Your task to perform on an android device: turn off picture-in-picture Image 0: 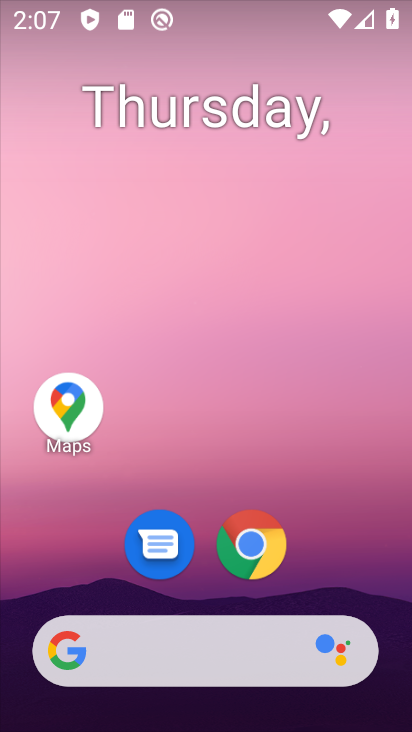
Step 0: drag from (322, 585) to (119, 144)
Your task to perform on an android device: turn off picture-in-picture Image 1: 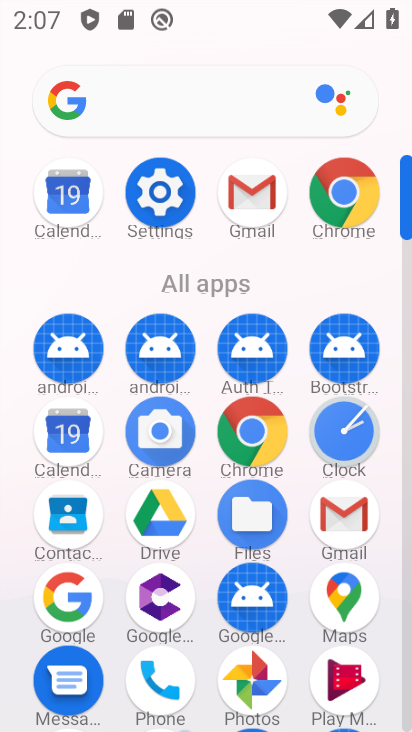
Step 1: click (177, 207)
Your task to perform on an android device: turn off picture-in-picture Image 2: 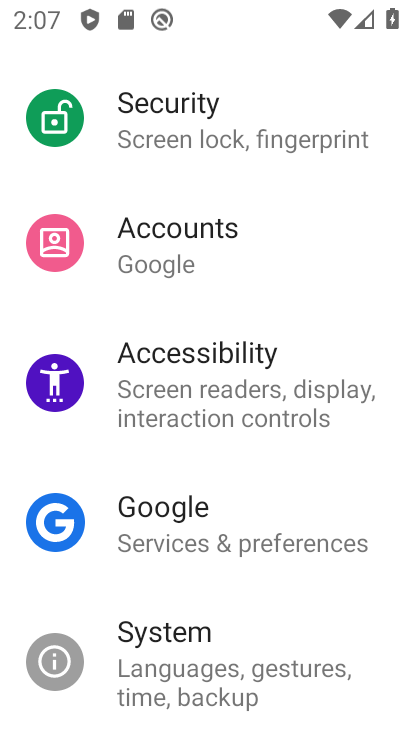
Step 2: drag from (235, 178) to (190, 686)
Your task to perform on an android device: turn off picture-in-picture Image 3: 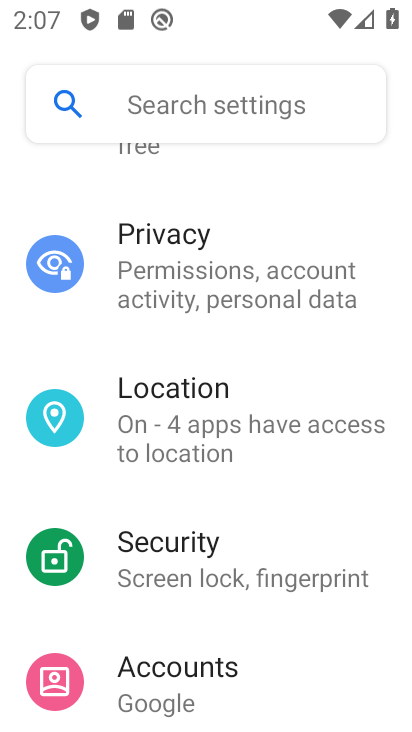
Step 3: drag from (186, 266) to (185, 619)
Your task to perform on an android device: turn off picture-in-picture Image 4: 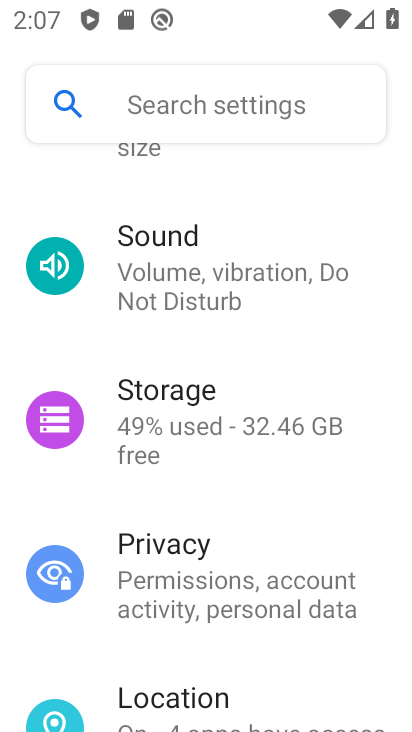
Step 4: drag from (221, 215) to (184, 605)
Your task to perform on an android device: turn off picture-in-picture Image 5: 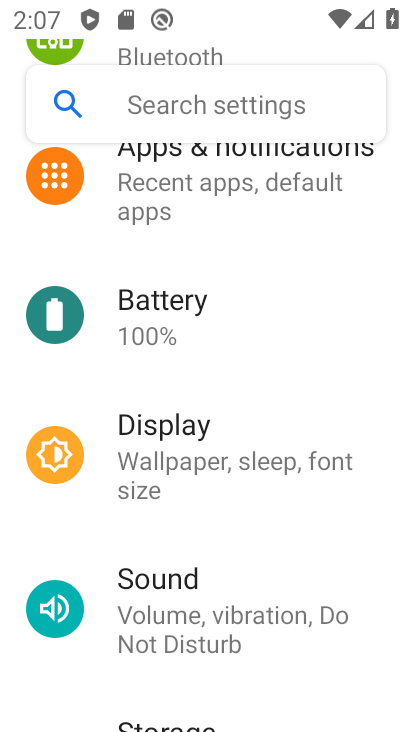
Step 5: click (197, 209)
Your task to perform on an android device: turn off picture-in-picture Image 6: 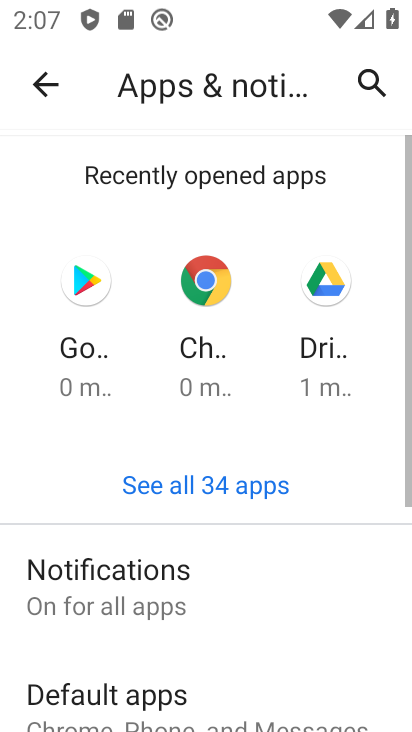
Step 6: drag from (215, 635) to (228, 293)
Your task to perform on an android device: turn off picture-in-picture Image 7: 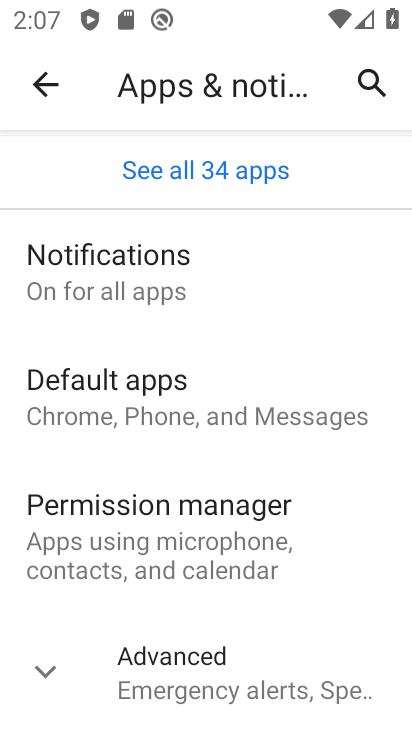
Step 7: drag from (224, 676) to (238, 331)
Your task to perform on an android device: turn off picture-in-picture Image 8: 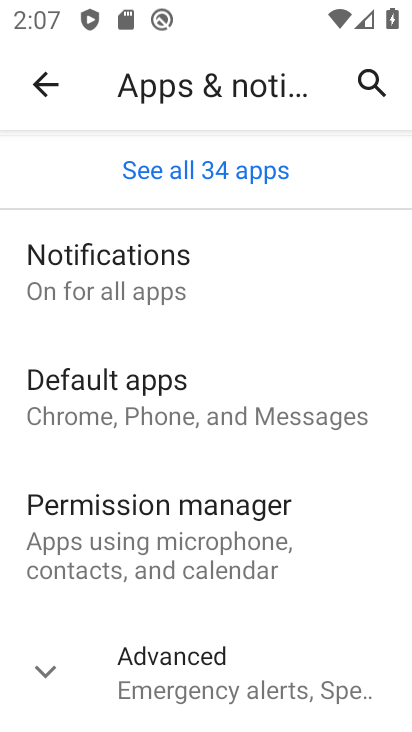
Step 8: click (202, 685)
Your task to perform on an android device: turn off picture-in-picture Image 9: 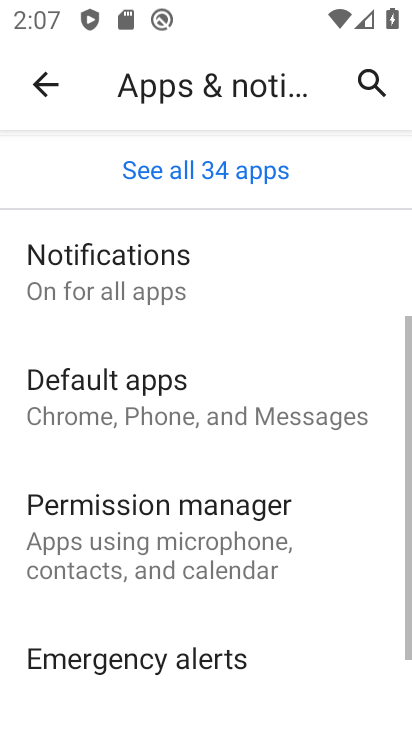
Step 9: drag from (204, 690) to (201, 218)
Your task to perform on an android device: turn off picture-in-picture Image 10: 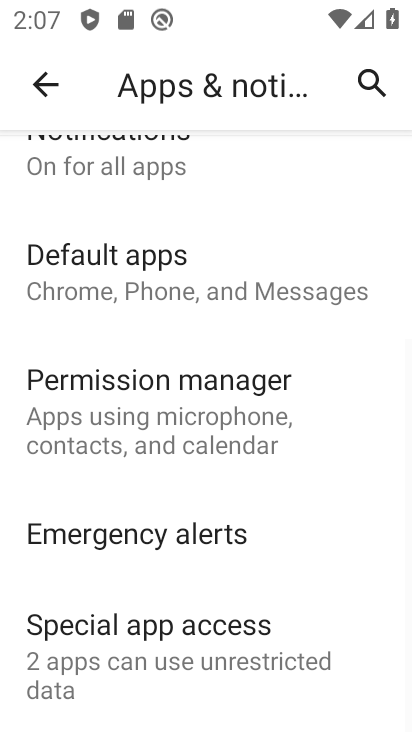
Step 10: click (115, 658)
Your task to perform on an android device: turn off picture-in-picture Image 11: 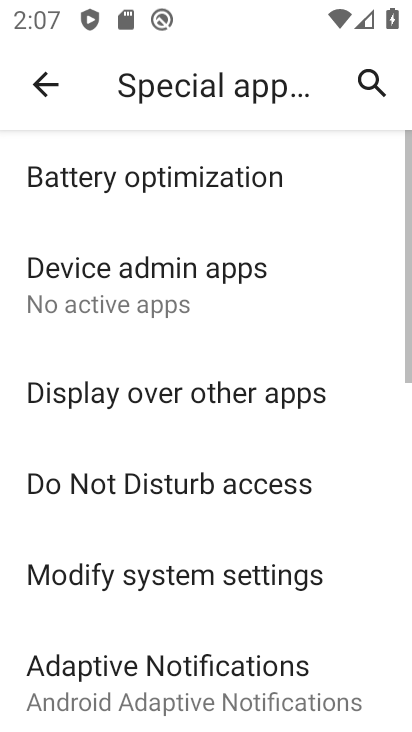
Step 11: drag from (119, 642) to (158, 269)
Your task to perform on an android device: turn off picture-in-picture Image 12: 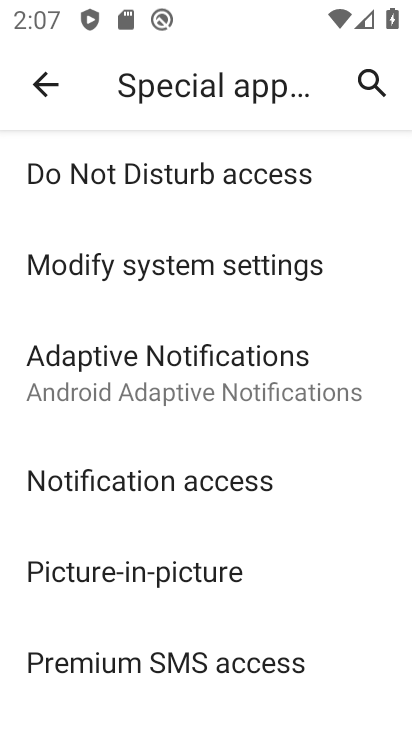
Step 12: click (143, 583)
Your task to perform on an android device: turn off picture-in-picture Image 13: 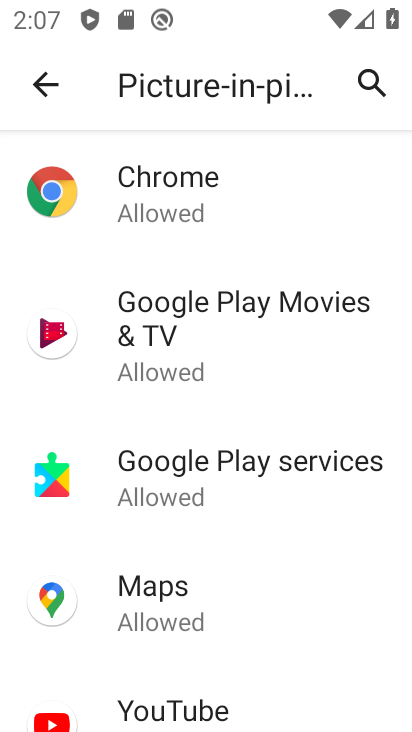
Step 13: click (163, 713)
Your task to perform on an android device: turn off picture-in-picture Image 14: 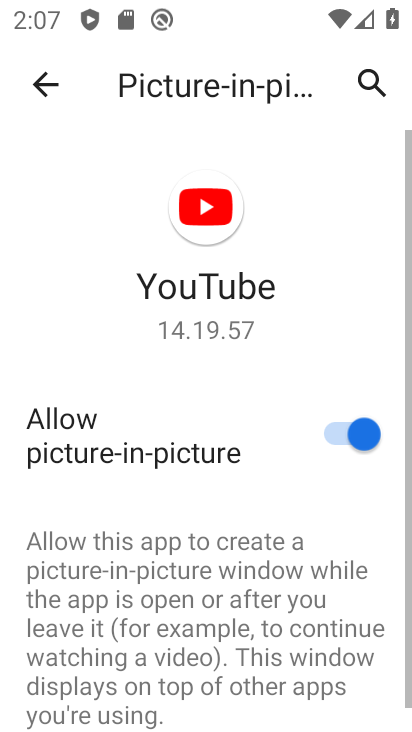
Step 14: click (358, 442)
Your task to perform on an android device: turn off picture-in-picture Image 15: 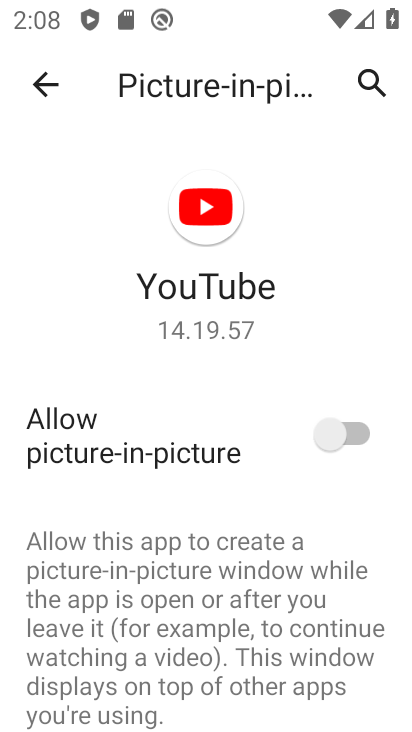
Step 15: task complete